Your task to perform on an android device: Open the calendar app, open the side menu, and click the "Day" option Image 0: 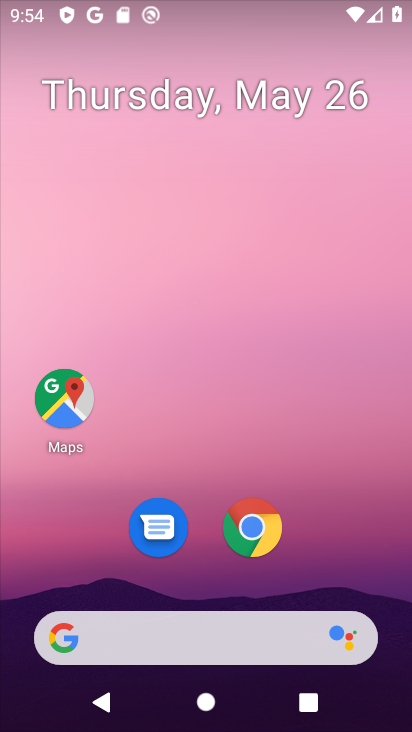
Step 0: drag from (344, 524) to (346, 0)
Your task to perform on an android device: Open the calendar app, open the side menu, and click the "Day" option Image 1: 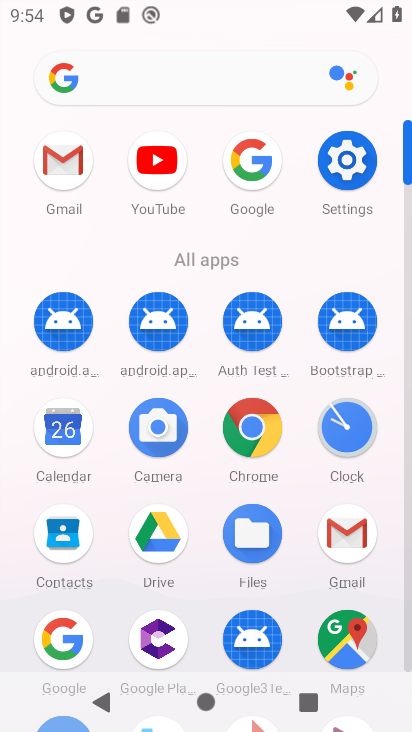
Step 1: click (77, 428)
Your task to perform on an android device: Open the calendar app, open the side menu, and click the "Day" option Image 2: 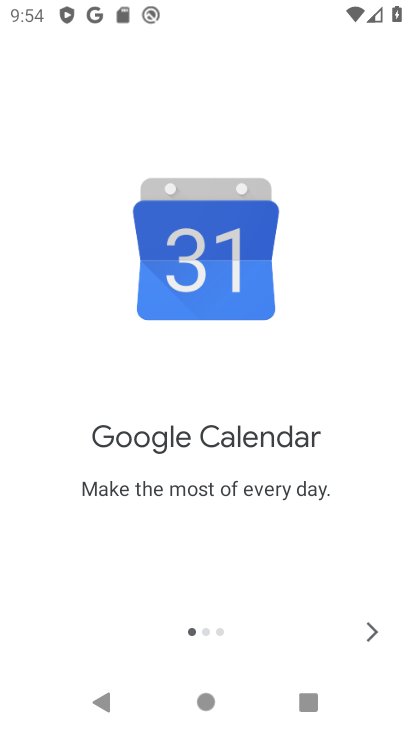
Step 2: click (376, 625)
Your task to perform on an android device: Open the calendar app, open the side menu, and click the "Day" option Image 3: 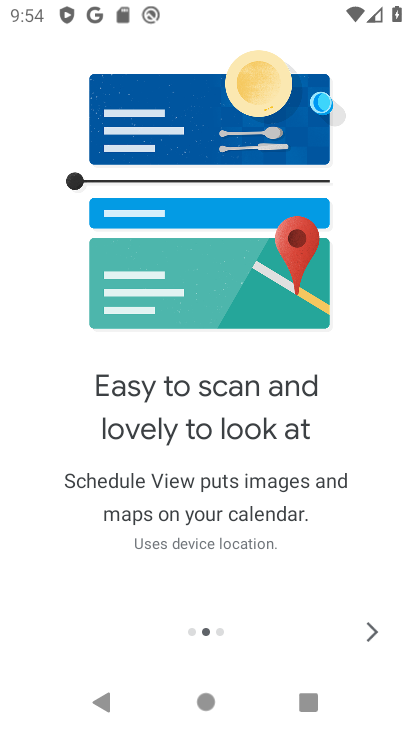
Step 3: click (375, 625)
Your task to perform on an android device: Open the calendar app, open the side menu, and click the "Day" option Image 4: 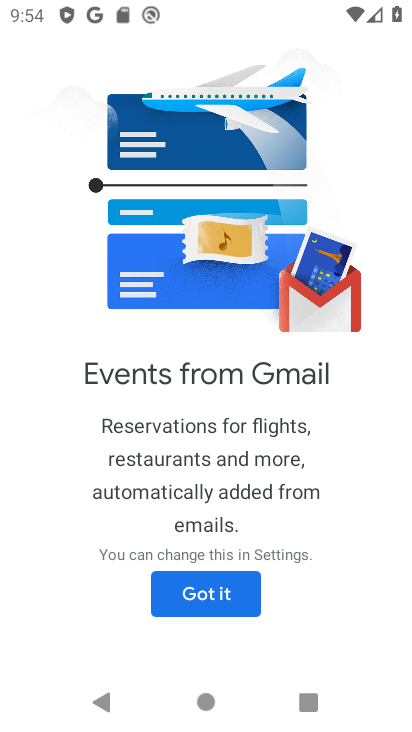
Step 4: click (193, 599)
Your task to perform on an android device: Open the calendar app, open the side menu, and click the "Day" option Image 5: 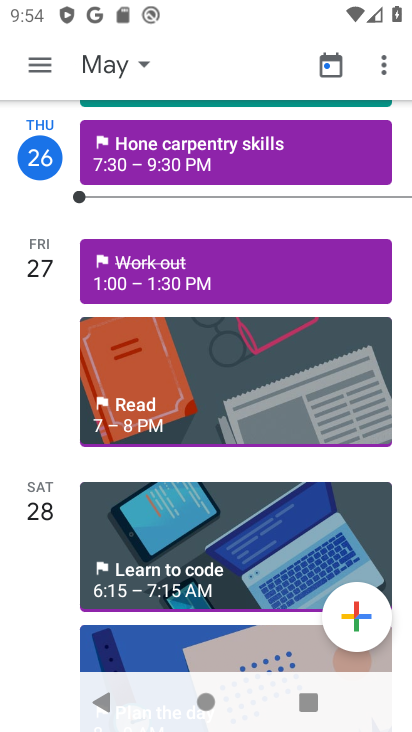
Step 5: click (41, 75)
Your task to perform on an android device: Open the calendar app, open the side menu, and click the "Day" option Image 6: 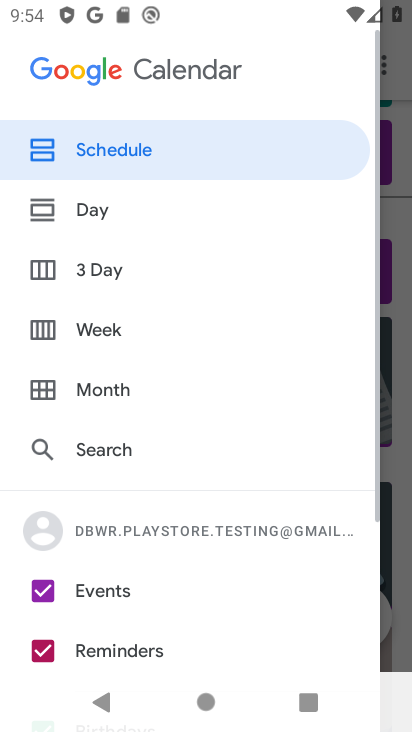
Step 6: click (93, 211)
Your task to perform on an android device: Open the calendar app, open the side menu, and click the "Day" option Image 7: 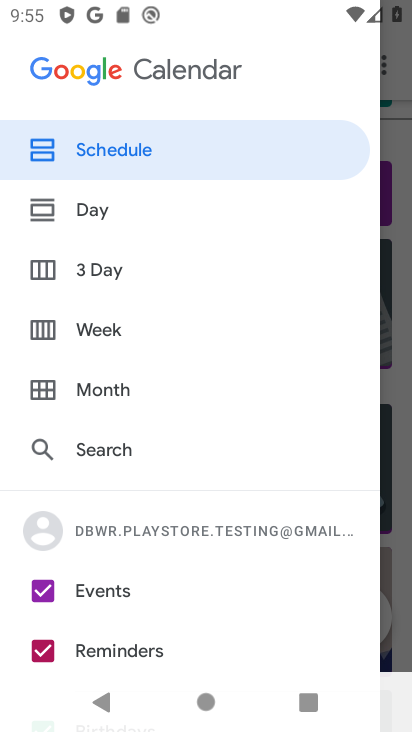
Step 7: click (154, 206)
Your task to perform on an android device: Open the calendar app, open the side menu, and click the "Day" option Image 8: 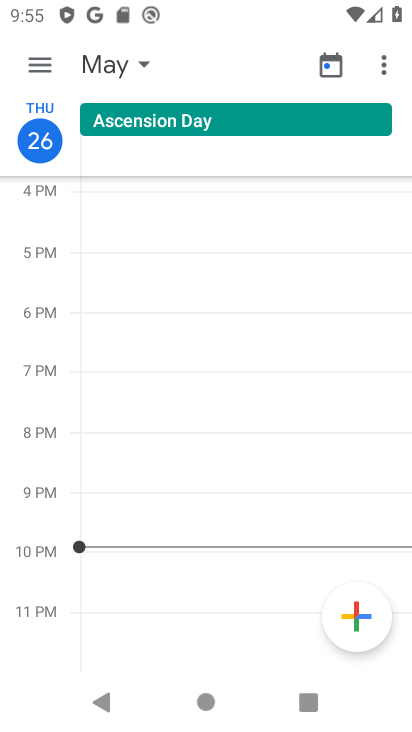
Step 8: task complete